Your task to perform on an android device: Open privacy settings Image 0: 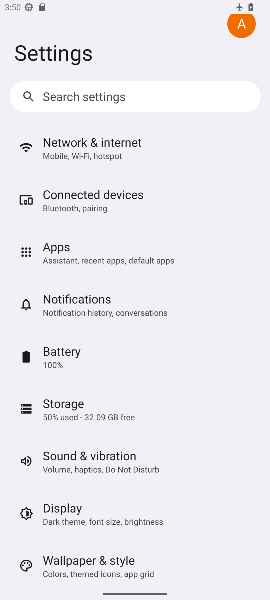
Step 0: press home button
Your task to perform on an android device: Open privacy settings Image 1: 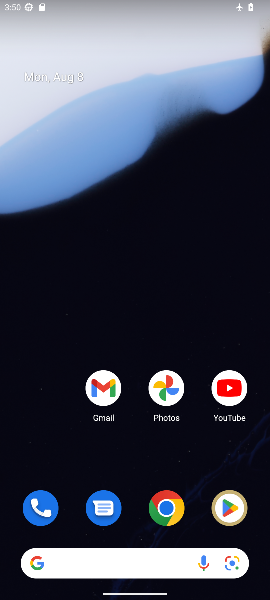
Step 1: drag from (139, 471) to (126, 89)
Your task to perform on an android device: Open privacy settings Image 2: 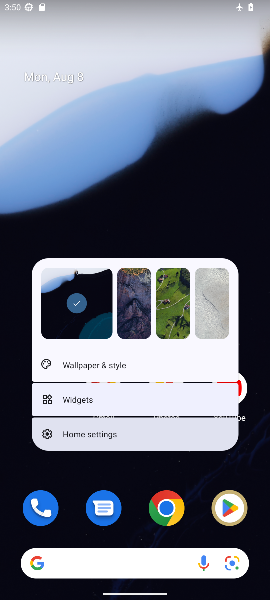
Step 2: click (121, 193)
Your task to perform on an android device: Open privacy settings Image 3: 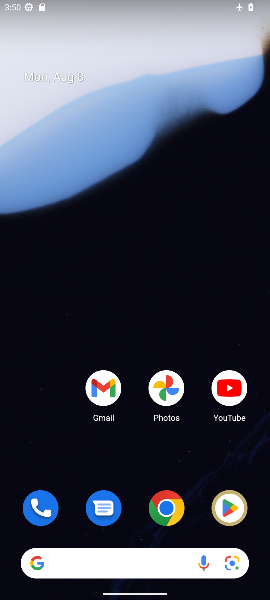
Step 3: drag from (141, 467) to (113, 57)
Your task to perform on an android device: Open privacy settings Image 4: 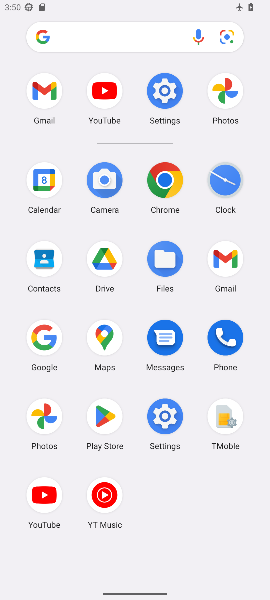
Step 4: click (165, 94)
Your task to perform on an android device: Open privacy settings Image 5: 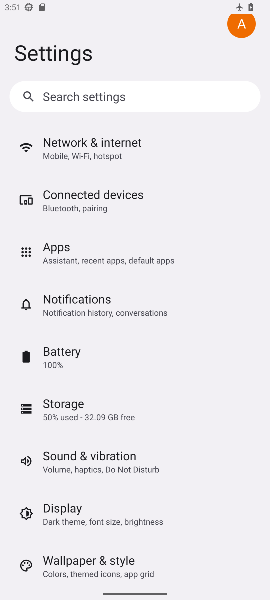
Step 5: drag from (190, 534) to (174, 221)
Your task to perform on an android device: Open privacy settings Image 6: 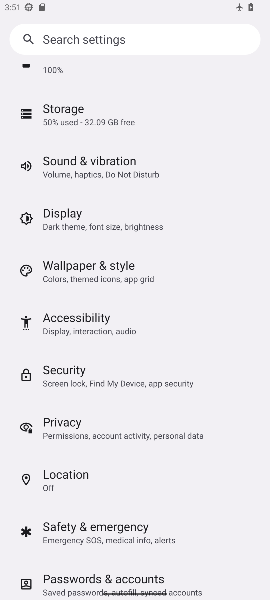
Step 6: click (65, 423)
Your task to perform on an android device: Open privacy settings Image 7: 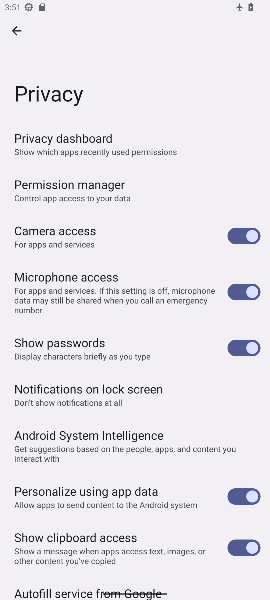
Step 7: task complete